Your task to perform on an android device: Search for Italian restaurants on Maps Image 0: 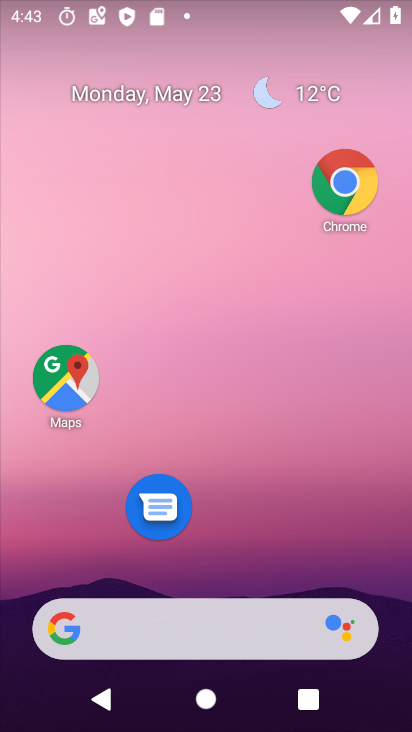
Step 0: click (87, 378)
Your task to perform on an android device: Search for Italian restaurants on Maps Image 1: 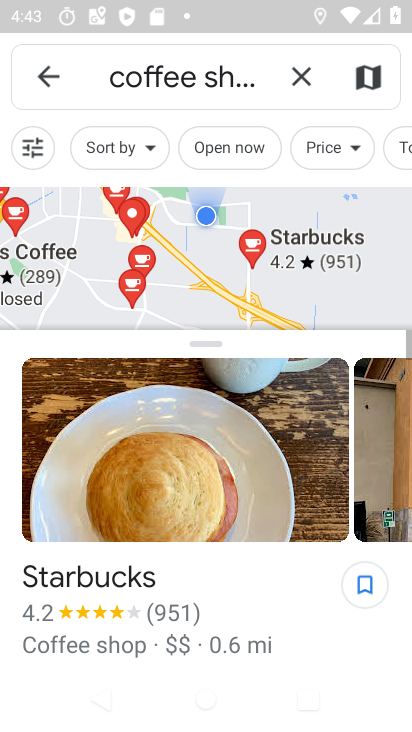
Step 1: click (314, 85)
Your task to perform on an android device: Search for Italian restaurants on Maps Image 2: 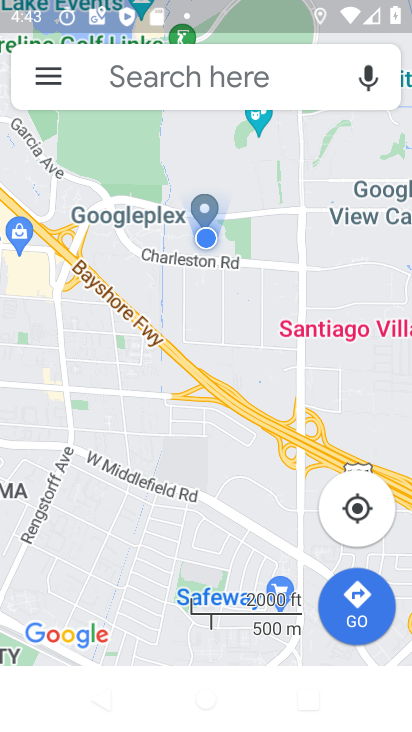
Step 2: click (240, 84)
Your task to perform on an android device: Search for Italian restaurants on Maps Image 3: 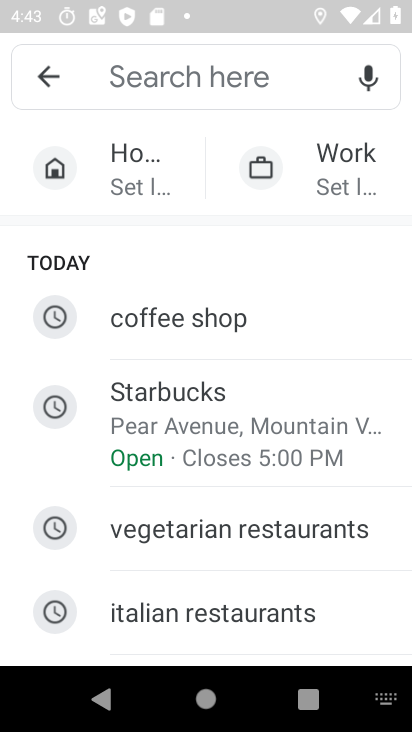
Step 3: click (210, 640)
Your task to perform on an android device: Search for Italian restaurants on Maps Image 4: 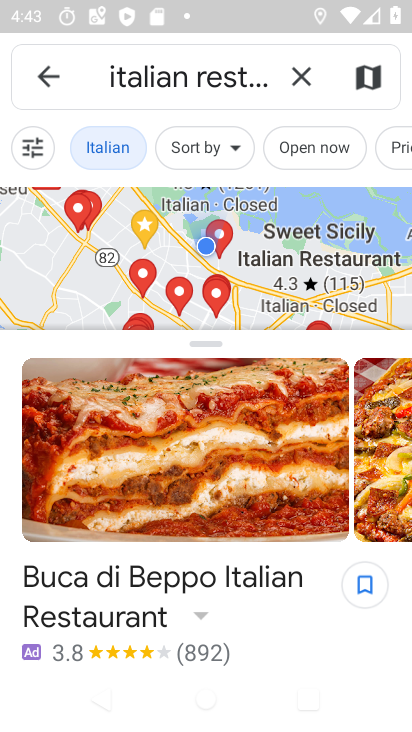
Step 4: task complete